Your task to perform on an android device: check android version Image 0: 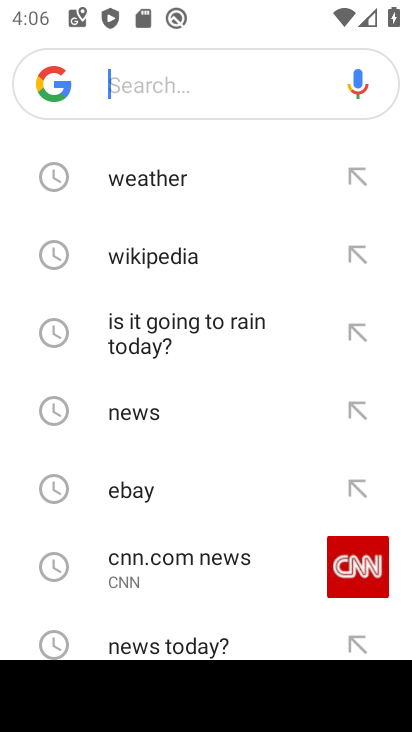
Step 0: press back button
Your task to perform on an android device: check android version Image 1: 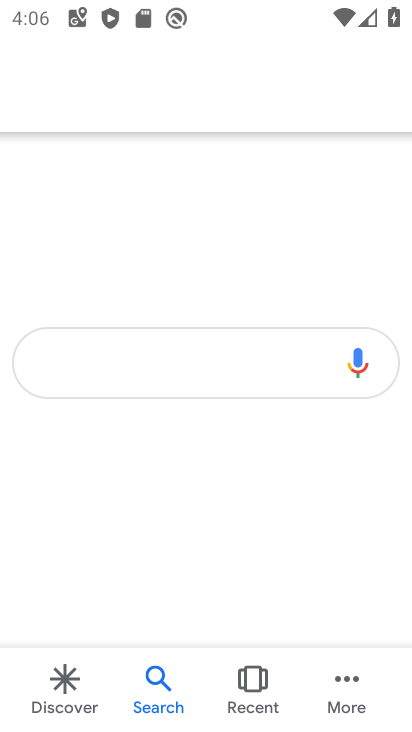
Step 1: press back button
Your task to perform on an android device: check android version Image 2: 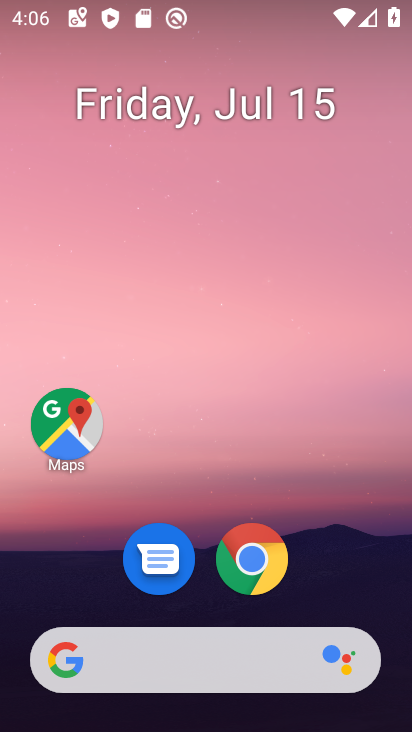
Step 2: drag from (60, 575) to (182, 30)
Your task to perform on an android device: check android version Image 3: 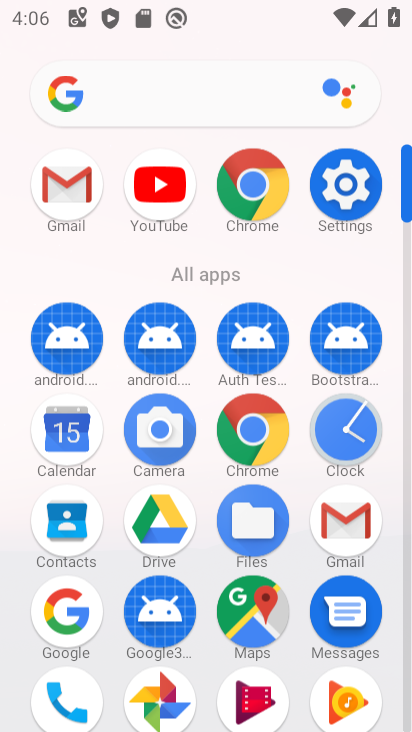
Step 3: click (348, 203)
Your task to perform on an android device: check android version Image 4: 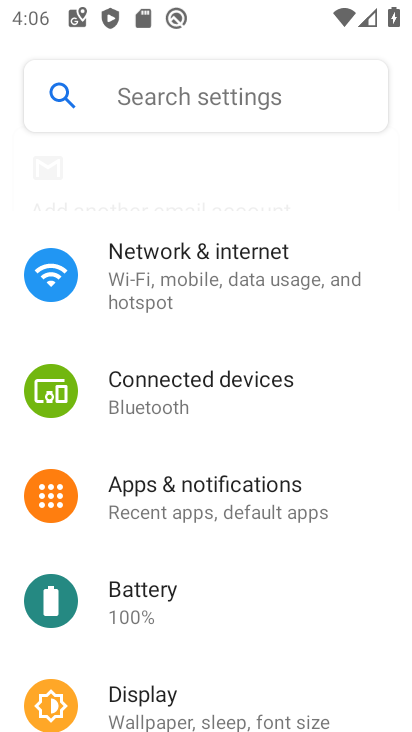
Step 4: drag from (179, 642) to (250, 118)
Your task to perform on an android device: check android version Image 5: 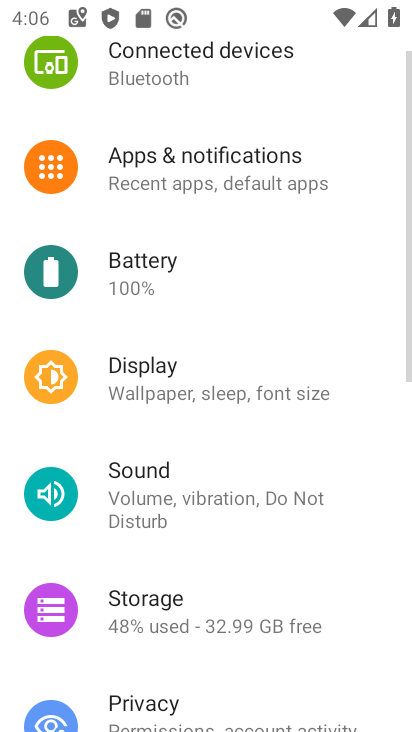
Step 5: drag from (216, 587) to (246, 64)
Your task to perform on an android device: check android version Image 6: 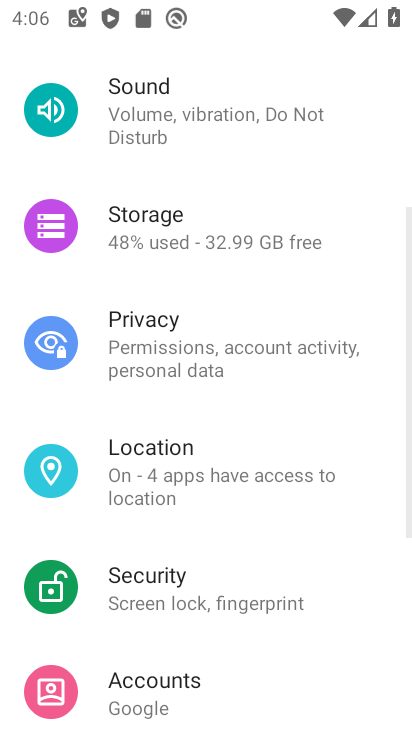
Step 6: drag from (193, 649) to (241, 16)
Your task to perform on an android device: check android version Image 7: 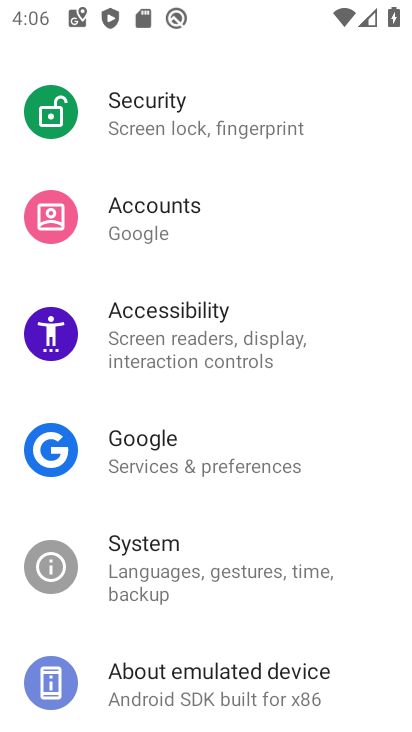
Step 7: click (181, 663)
Your task to perform on an android device: check android version Image 8: 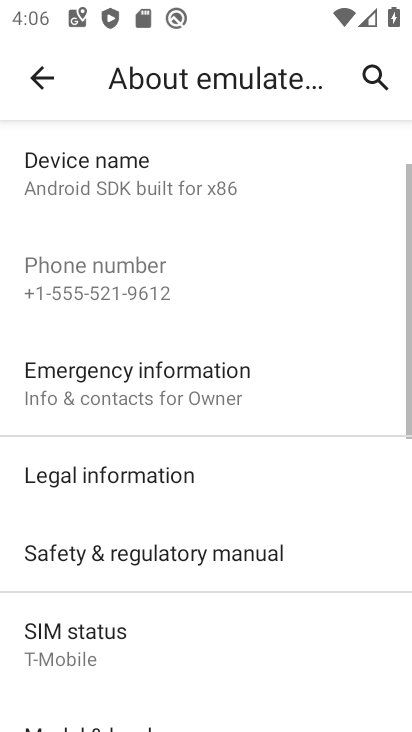
Step 8: drag from (157, 674) to (262, 73)
Your task to perform on an android device: check android version Image 9: 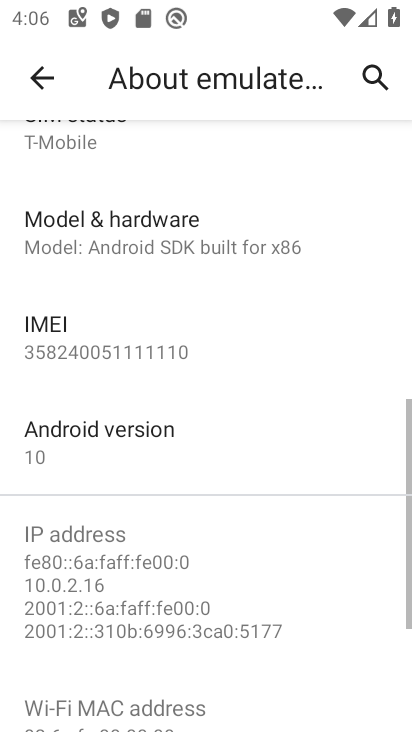
Step 9: click (63, 450)
Your task to perform on an android device: check android version Image 10: 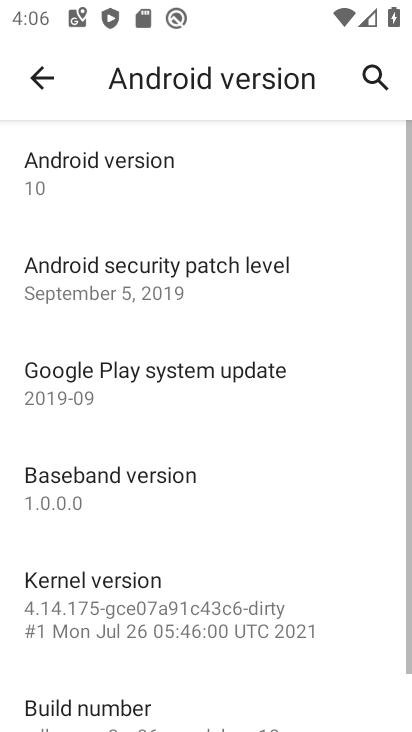
Step 10: task complete